Your task to perform on an android device: When is my next appointment? Image 0: 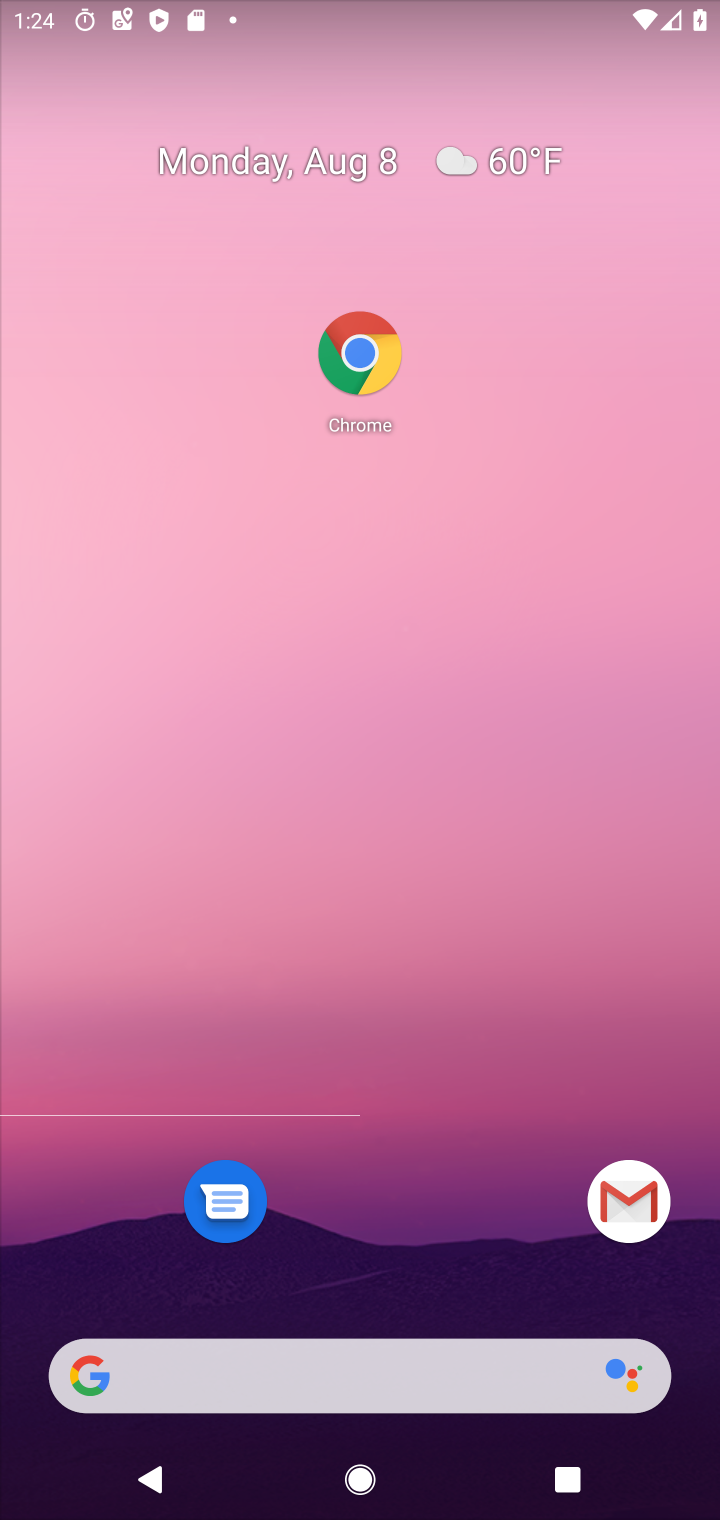
Step 0: press home button
Your task to perform on an android device: When is my next appointment? Image 1: 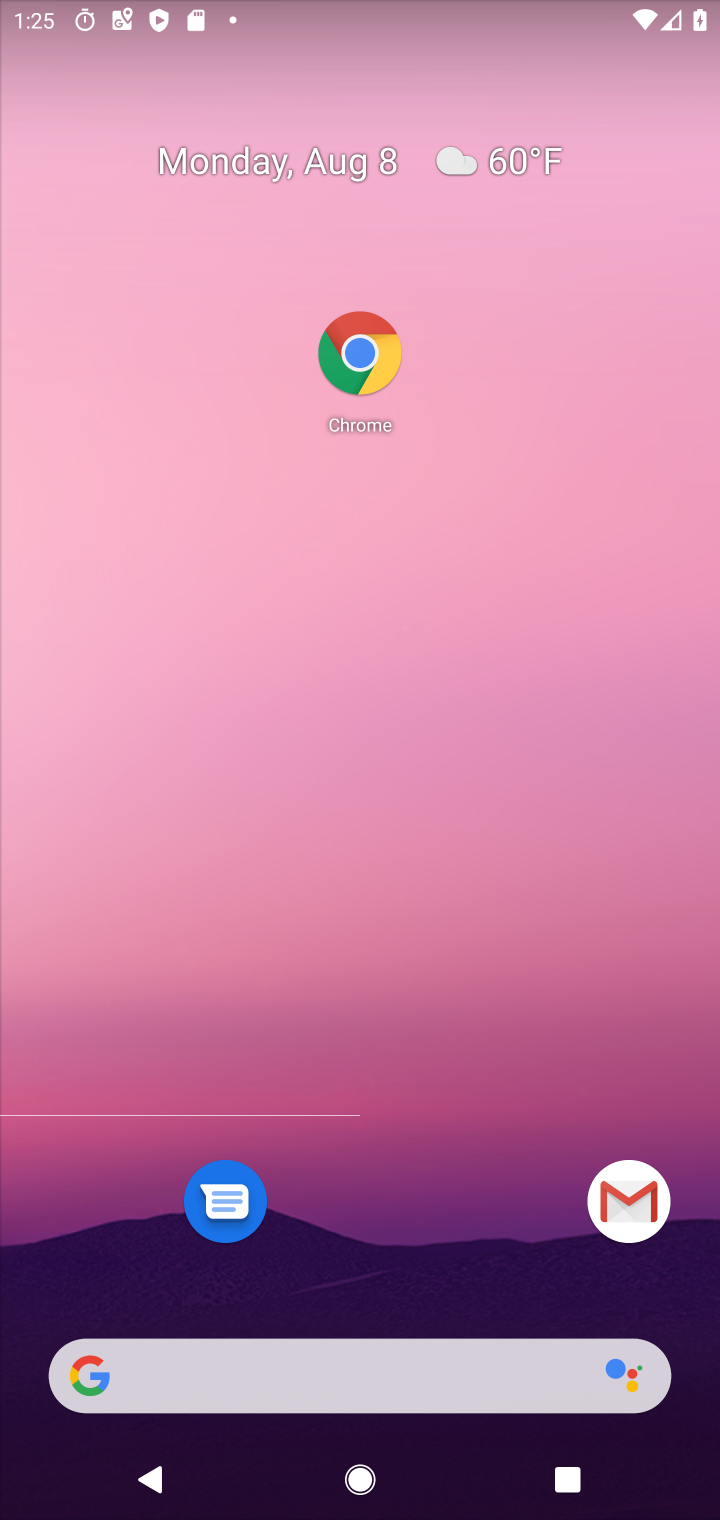
Step 1: drag from (520, 1391) to (373, 428)
Your task to perform on an android device: When is my next appointment? Image 2: 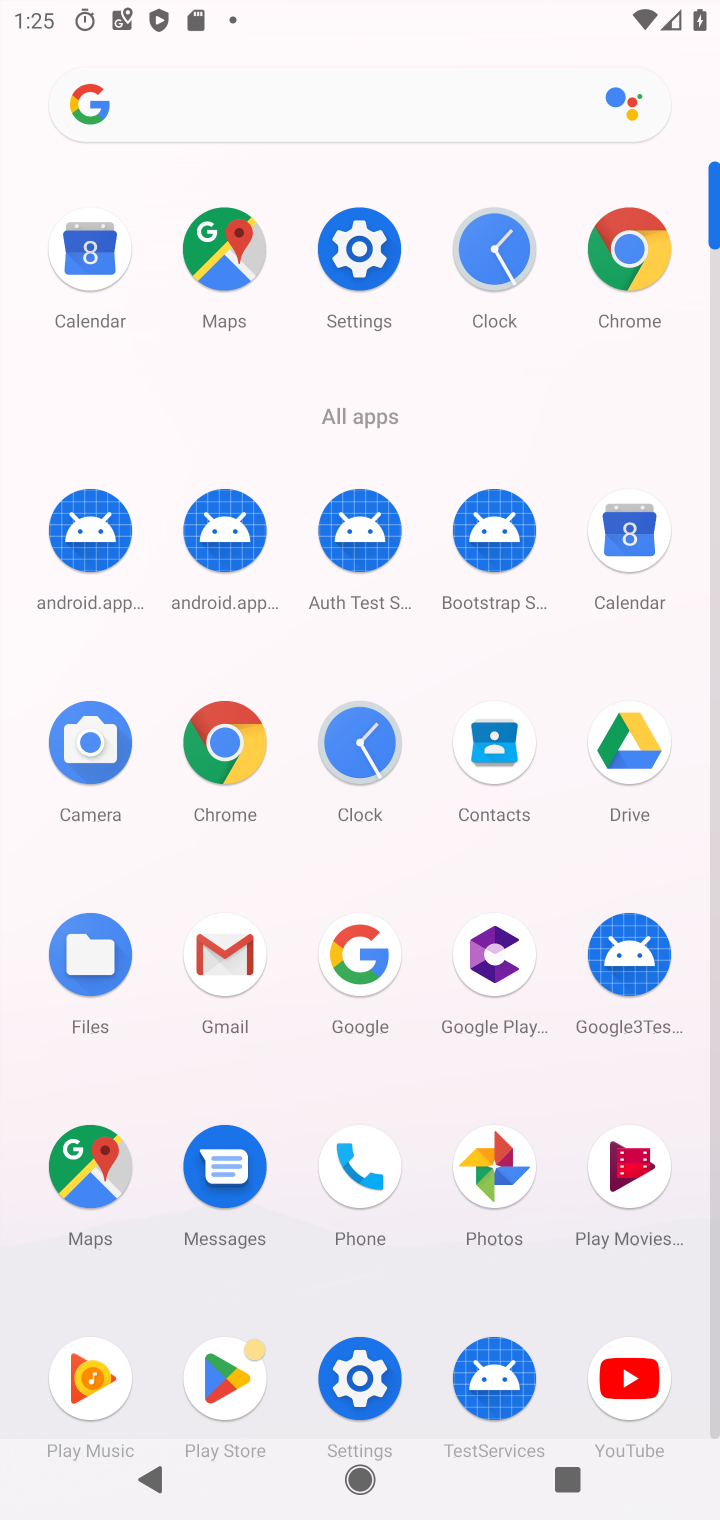
Step 2: click (638, 569)
Your task to perform on an android device: When is my next appointment? Image 3: 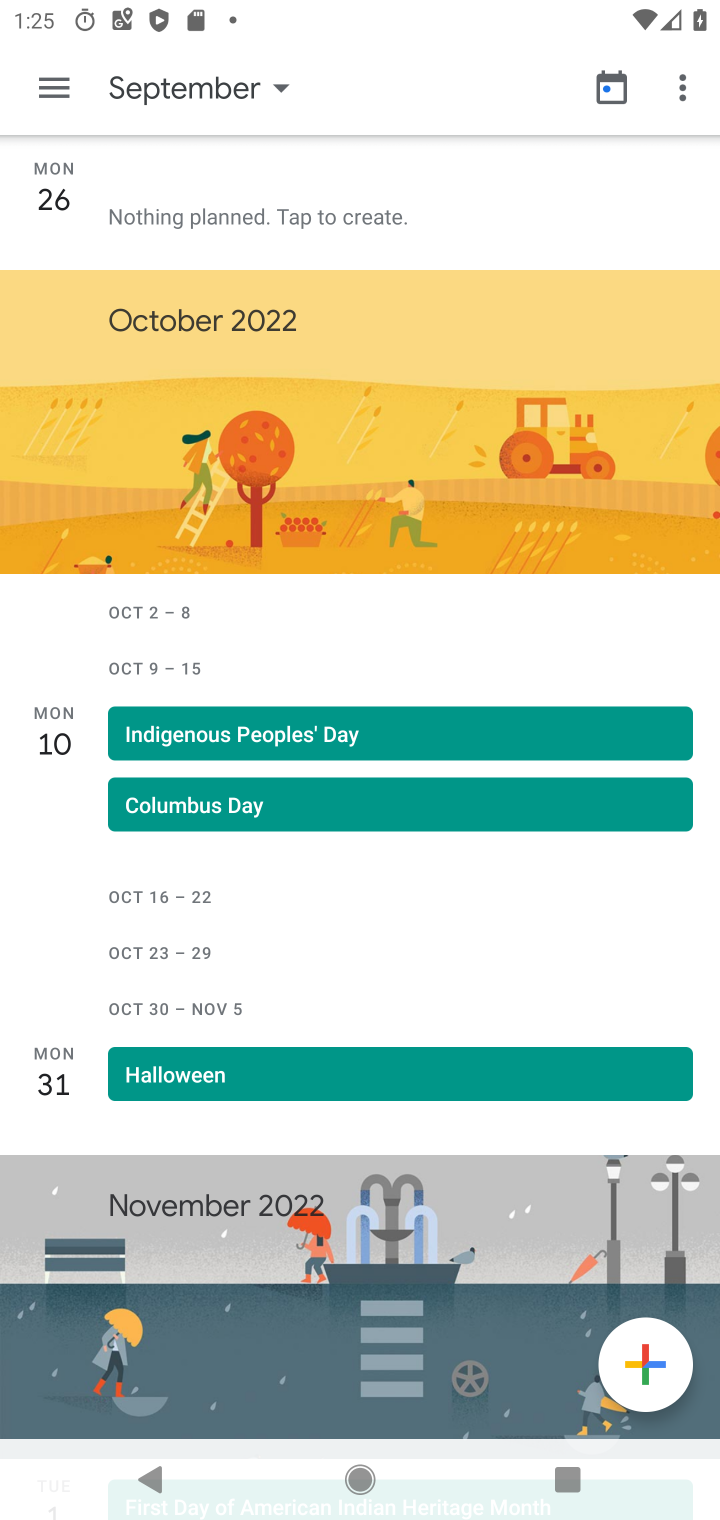
Step 3: click (77, 91)
Your task to perform on an android device: When is my next appointment? Image 4: 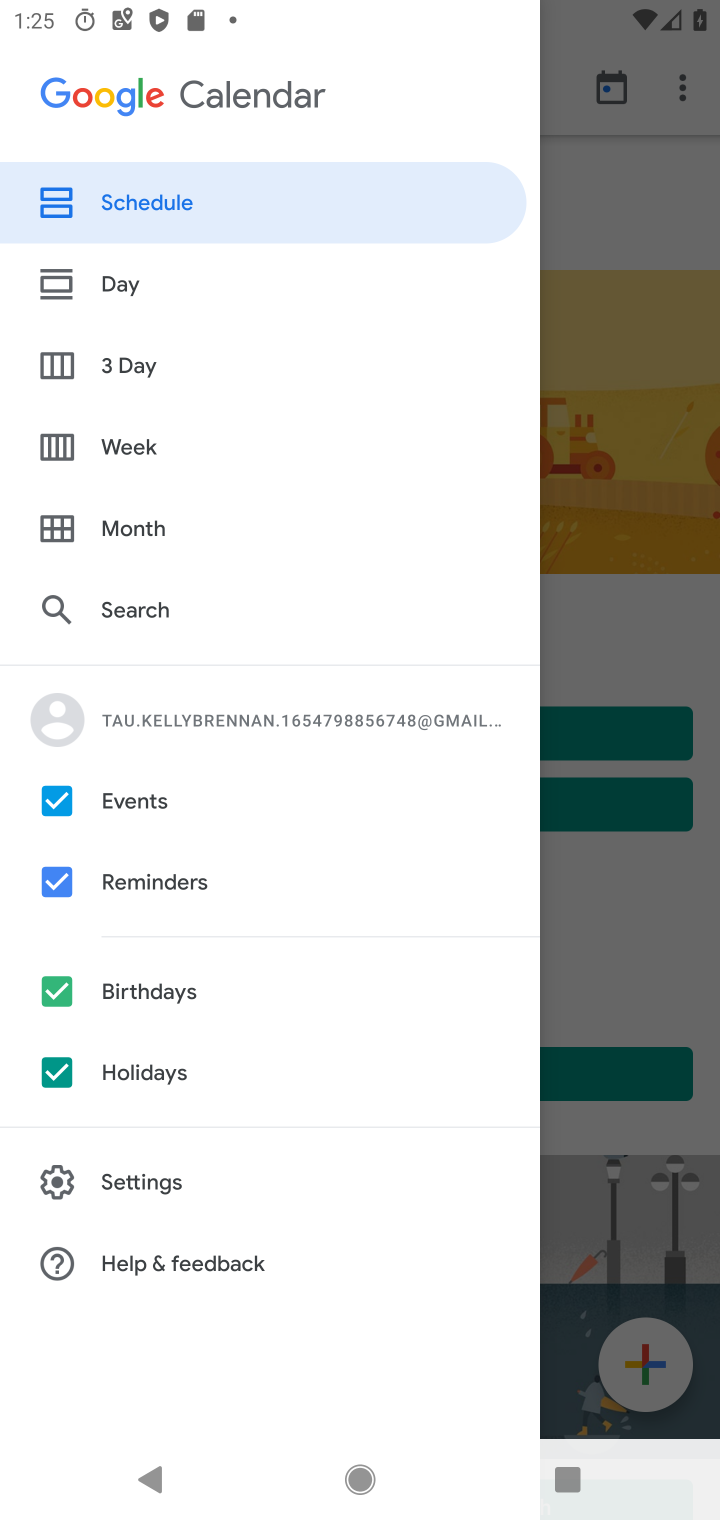
Step 4: click (151, 539)
Your task to perform on an android device: When is my next appointment? Image 5: 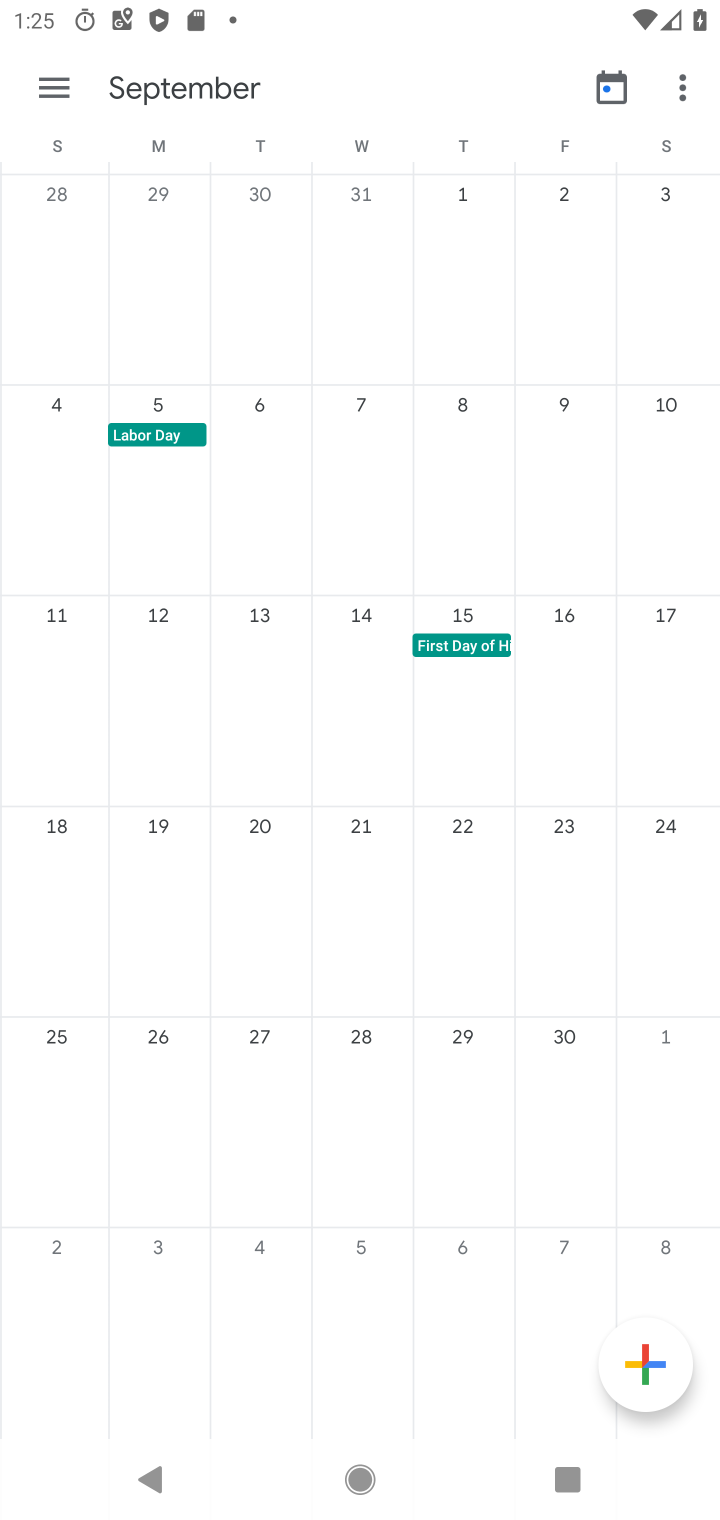
Step 5: drag from (64, 746) to (697, 520)
Your task to perform on an android device: When is my next appointment? Image 6: 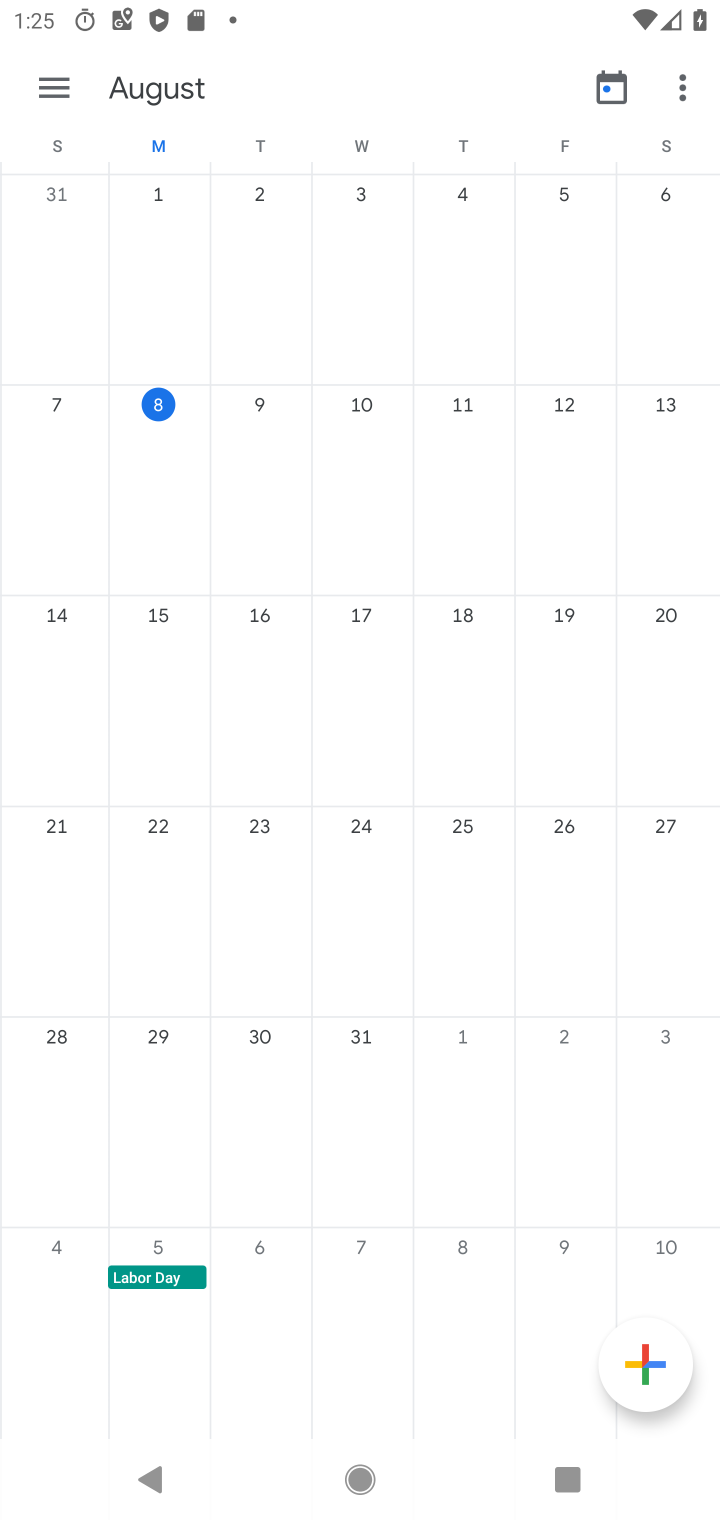
Step 6: click (190, 480)
Your task to perform on an android device: When is my next appointment? Image 7: 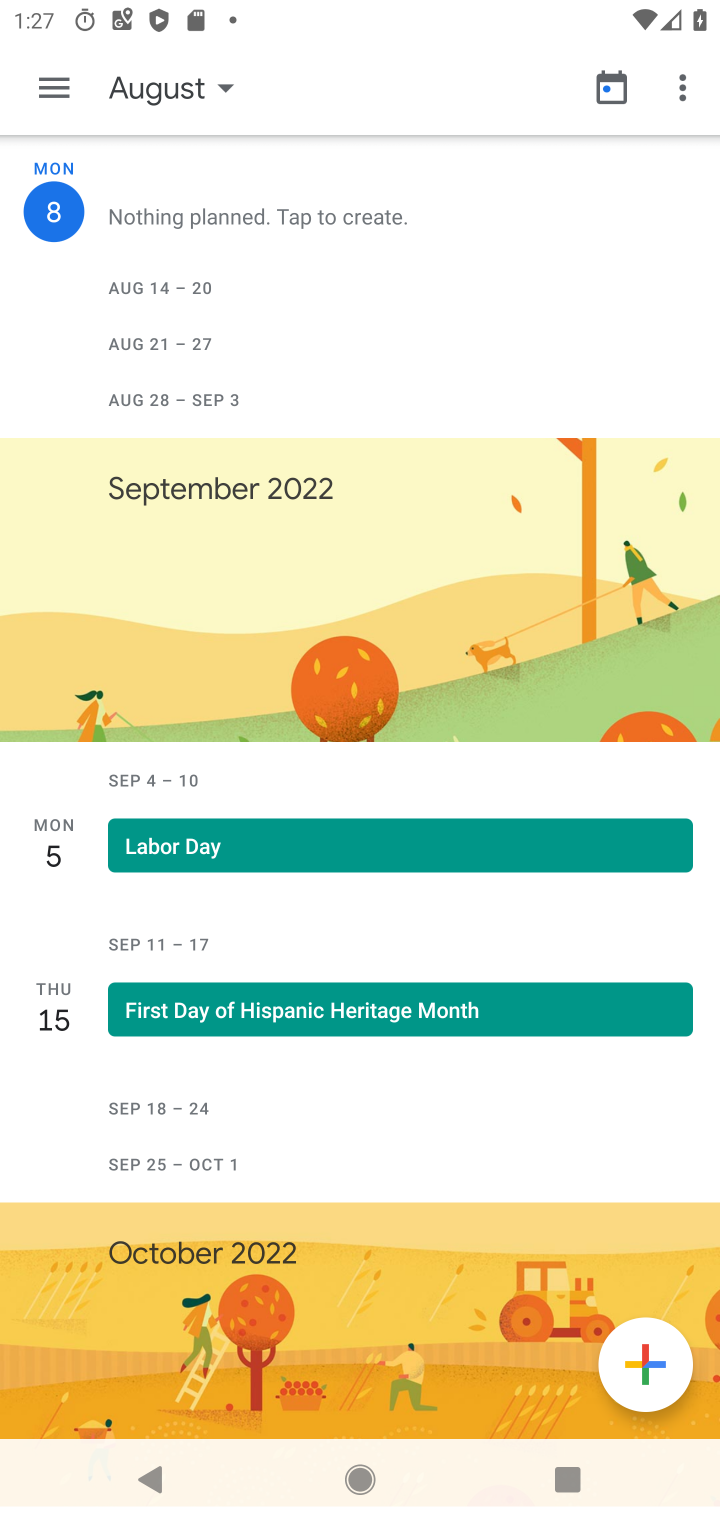
Step 7: task complete